Your task to perform on an android device: Open Android settings Image 0: 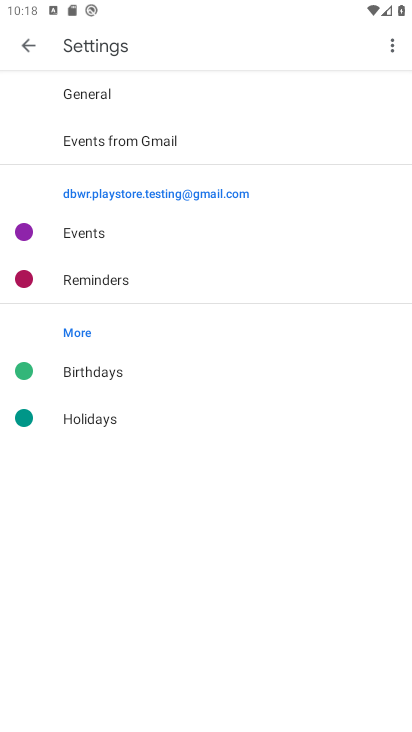
Step 0: press home button
Your task to perform on an android device: Open Android settings Image 1: 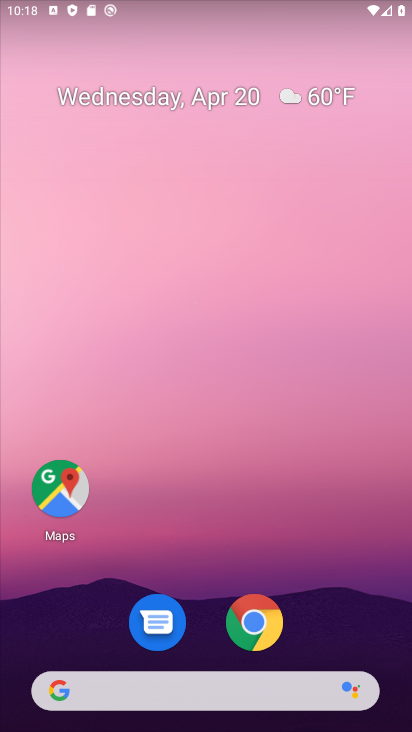
Step 1: drag from (368, 459) to (301, 67)
Your task to perform on an android device: Open Android settings Image 2: 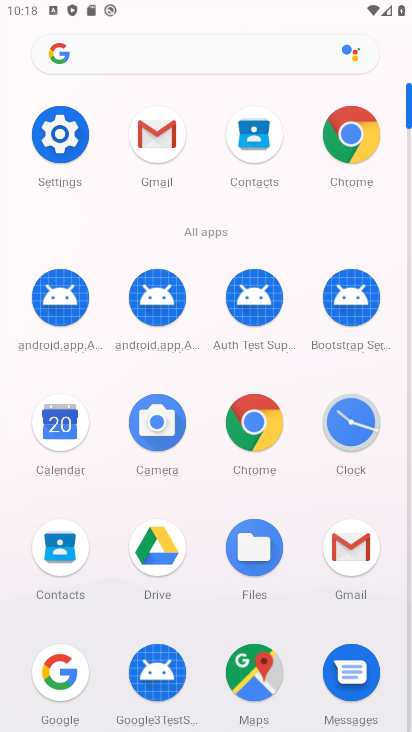
Step 2: click (44, 141)
Your task to perform on an android device: Open Android settings Image 3: 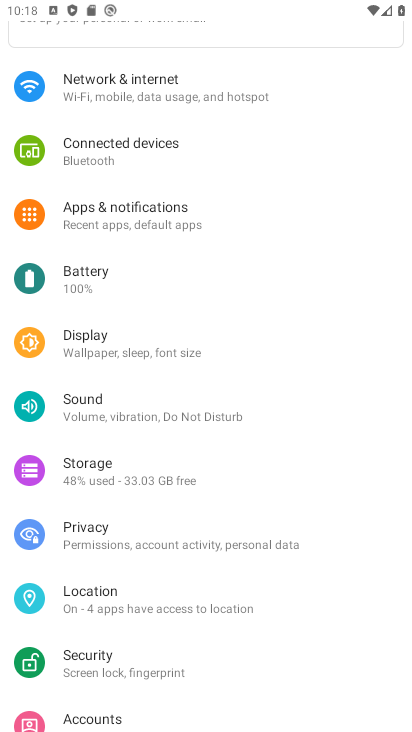
Step 3: drag from (242, 610) to (283, 194)
Your task to perform on an android device: Open Android settings Image 4: 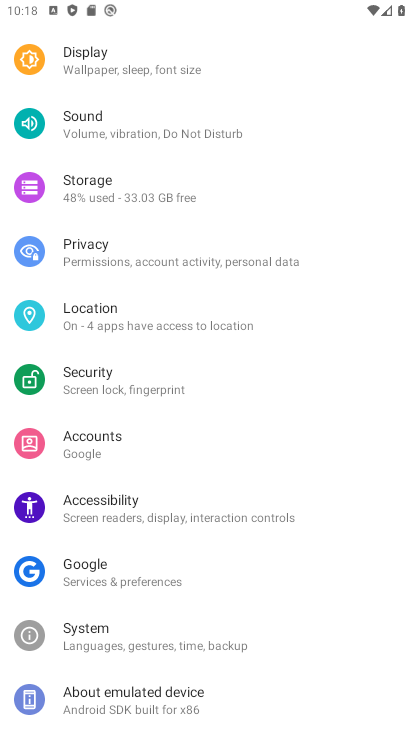
Step 4: drag from (265, 632) to (293, 202)
Your task to perform on an android device: Open Android settings Image 5: 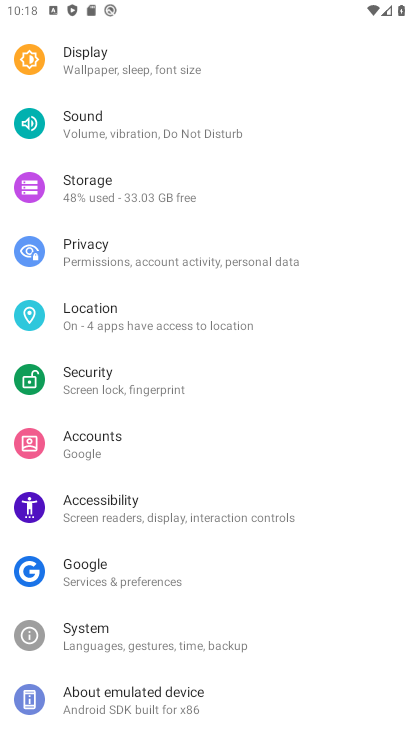
Step 5: click (220, 706)
Your task to perform on an android device: Open Android settings Image 6: 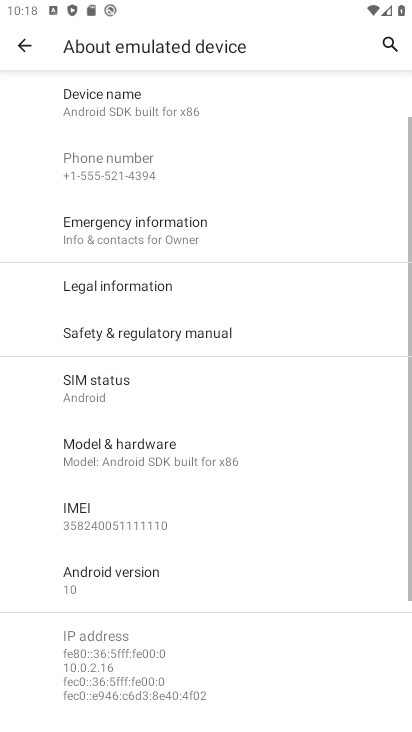
Step 6: task complete